Your task to perform on an android device: Set the phone to "Do not disturb". Image 0: 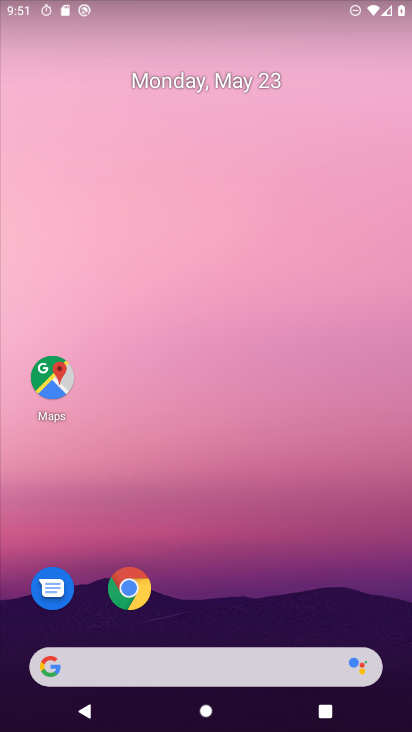
Step 0: drag from (360, 469) to (321, 278)
Your task to perform on an android device: Set the phone to "Do not disturb". Image 1: 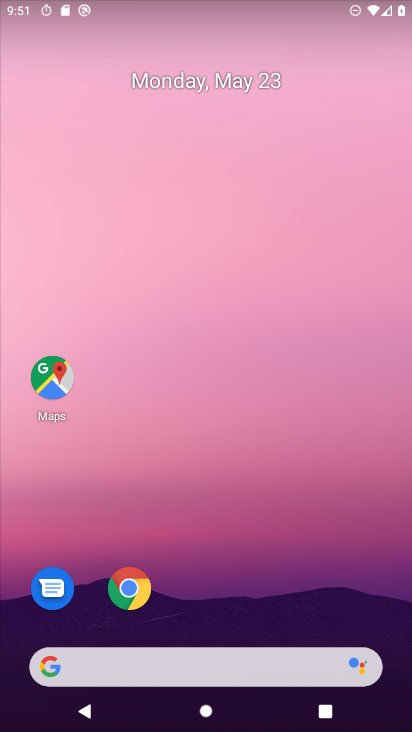
Step 1: drag from (397, 698) to (400, 238)
Your task to perform on an android device: Set the phone to "Do not disturb". Image 2: 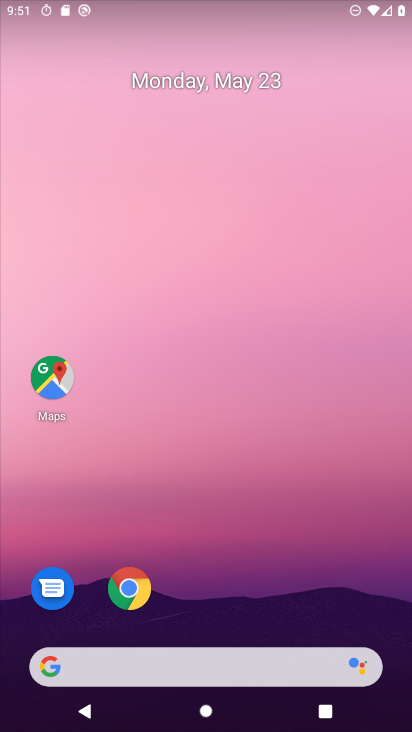
Step 2: drag from (393, 719) to (331, 101)
Your task to perform on an android device: Set the phone to "Do not disturb". Image 3: 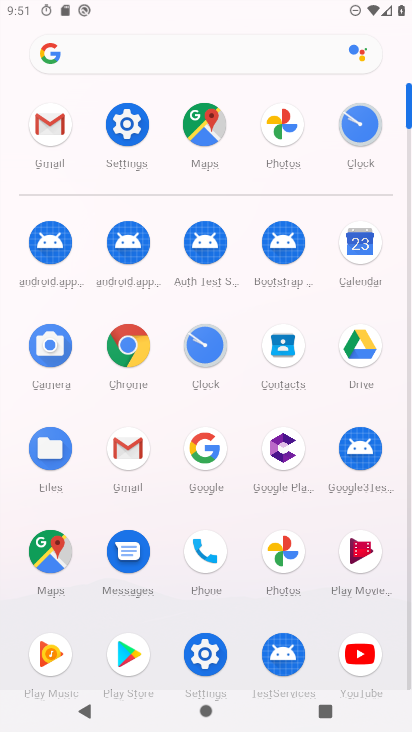
Step 3: click (120, 123)
Your task to perform on an android device: Set the phone to "Do not disturb". Image 4: 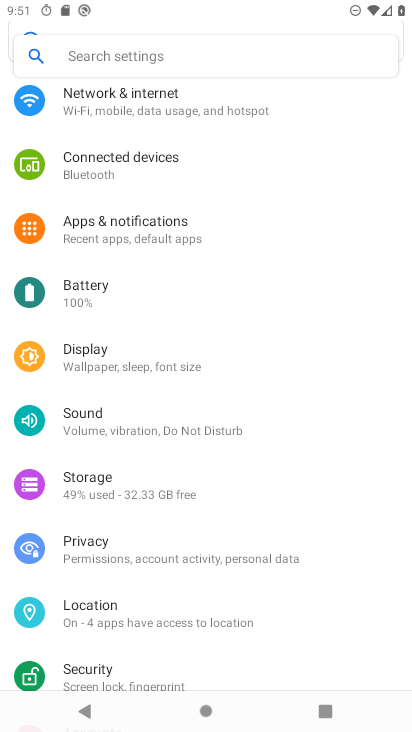
Step 4: click (106, 423)
Your task to perform on an android device: Set the phone to "Do not disturb". Image 5: 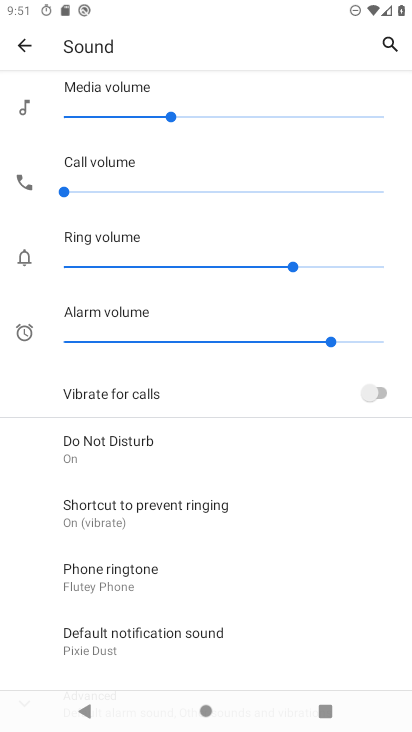
Step 5: task complete